Your task to perform on an android device: add a contact in the contacts app Image 0: 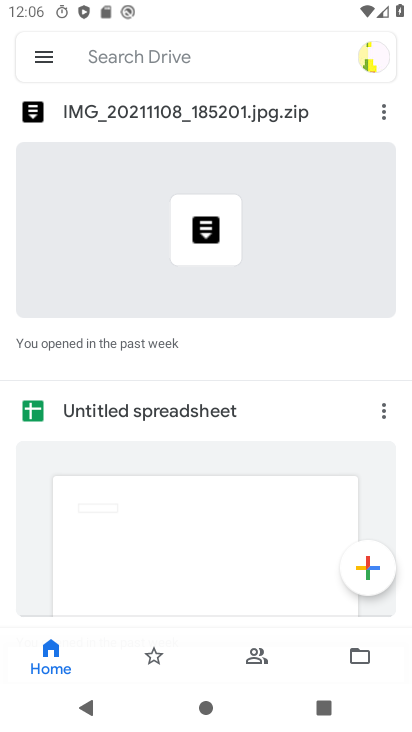
Step 0: press home button
Your task to perform on an android device: add a contact in the contacts app Image 1: 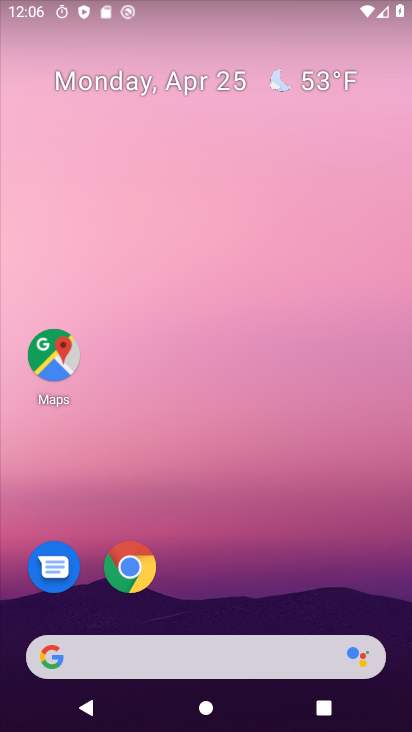
Step 1: drag from (268, 548) to (324, 122)
Your task to perform on an android device: add a contact in the contacts app Image 2: 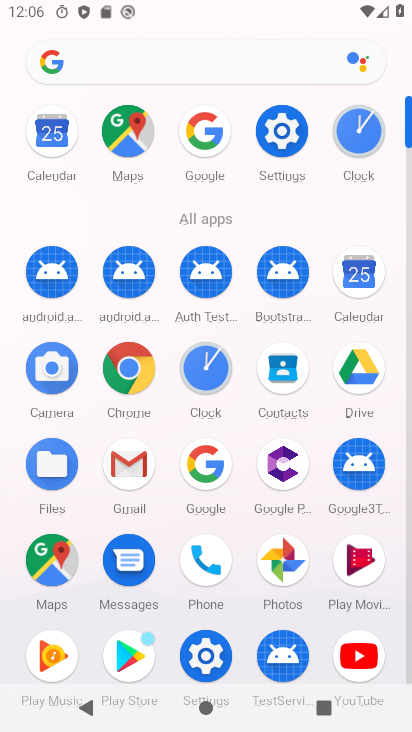
Step 2: click (284, 380)
Your task to perform on an android device: add a contact in the contacts app Image 3: 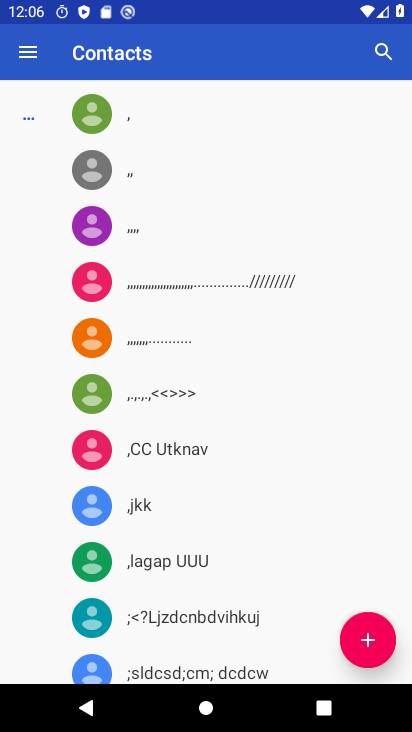
Step 3: click (365, 637)
Your task to perform on an android device: add a contact in the contacts app Image 4: 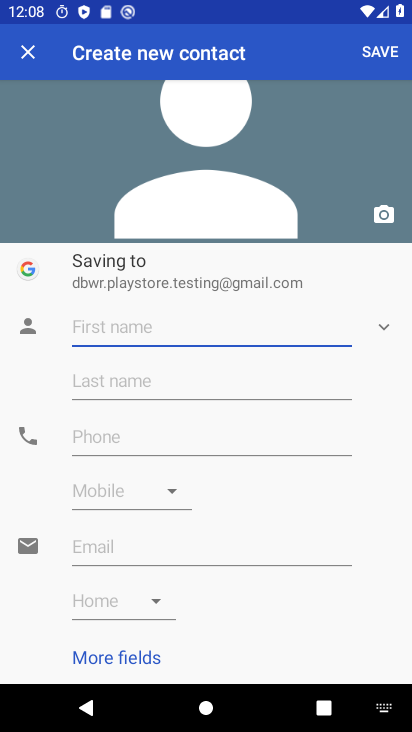
Step 4: type "Krishnanity Chrinstanity"
Your task to perform on an android device: add a contact in the contacts app Image 5: 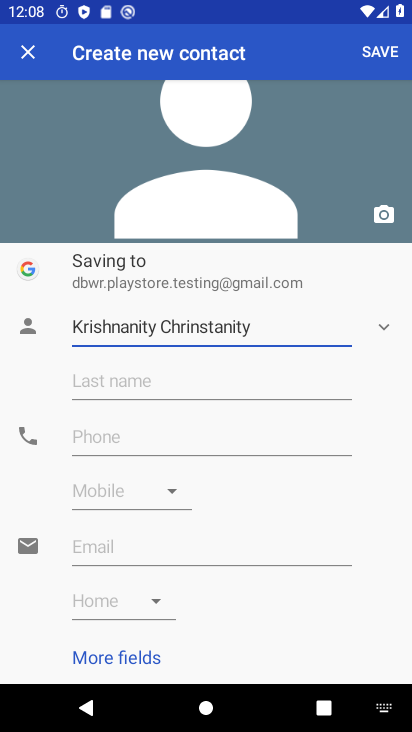
Step 5: click (220, 439)
Your task to perform on an android device: add a contact in the contacts app Image 6: 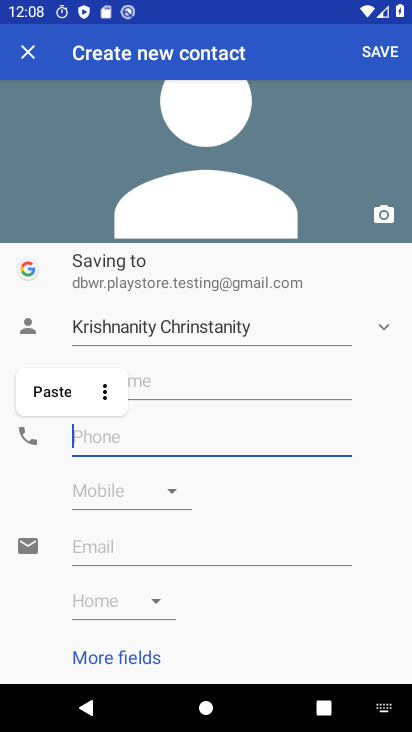
Step 6: type "911133557799"
Your task to perform on an android device: add a contact in the contacts app Image 7: 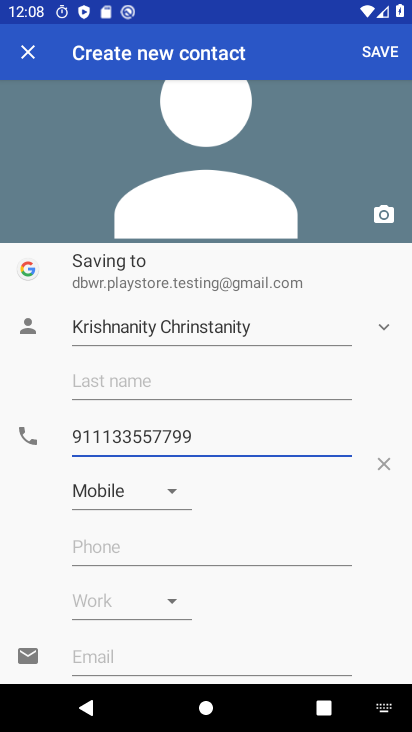
Step 7: click (382, 53)
Your task to perform on an android device: add a contact in the contacts app Image 8: 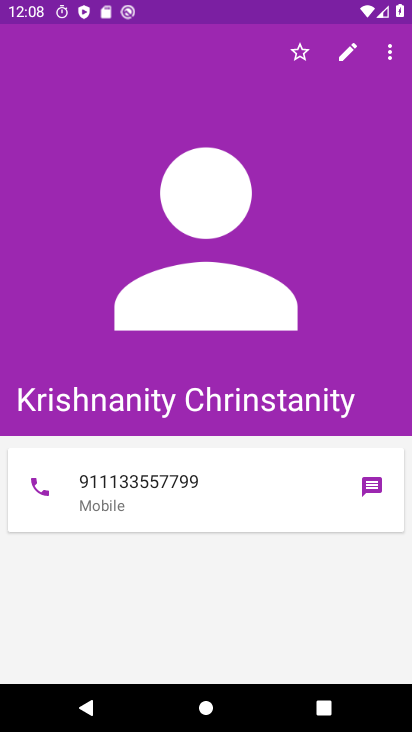
Step 8: click (344, 55)
Your task to perform on an android device: add a contact in the contacts app Image 9: 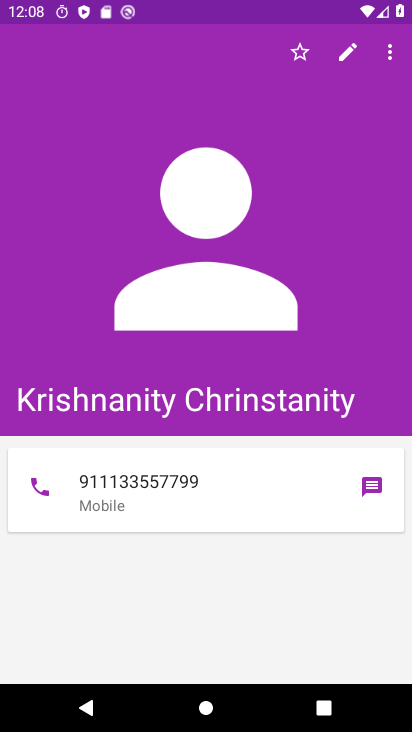
Step 9: click (344, 51)
Your task to perform on an android device: add a contact in the contacts app Image 10: 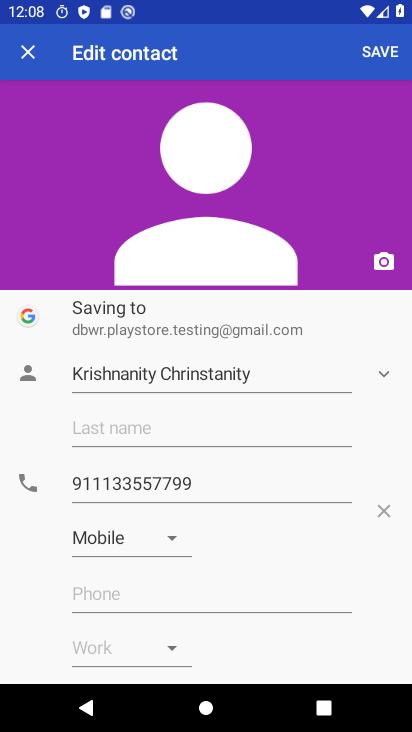
Step 10: click (257, 372)
Your task to perform on an android device: add a contact in the contacts app Image 11: 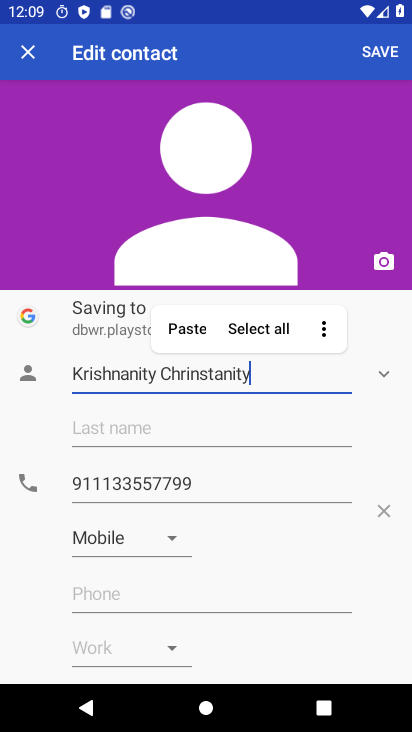
Step 11: type ""
Your task to perform on an android device: add a contact in the contacts app Image 12: 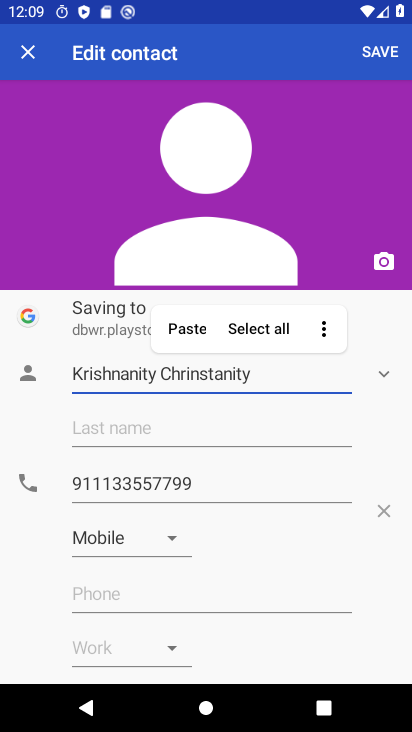
Step 12: click (234, 429)
Your task to perform on an android device: add a contact in the contacts app Image 13: 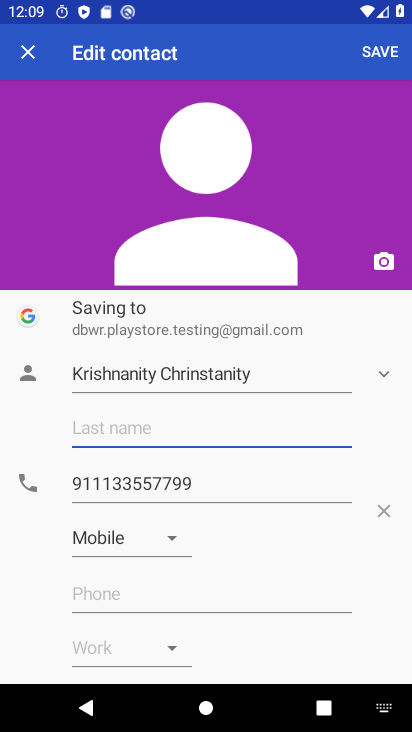
Step 13: type "Kristankity"
Your task to perform on an android device: add a contact in the contacts app Image 14: 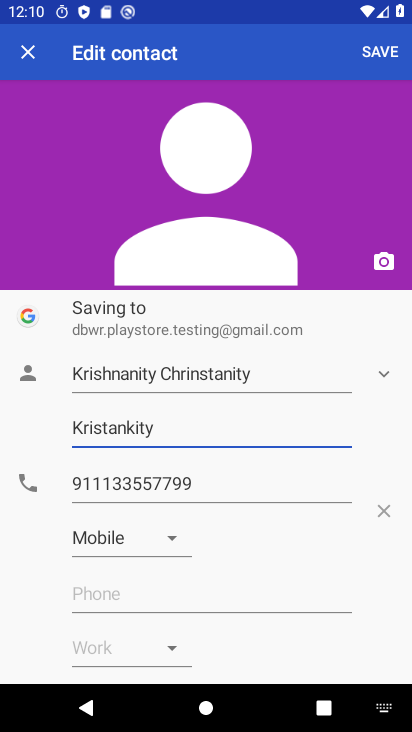
Step 14: click (230, 428)
Your task to perform on an android device: add a contact in the contacts app Image 15: 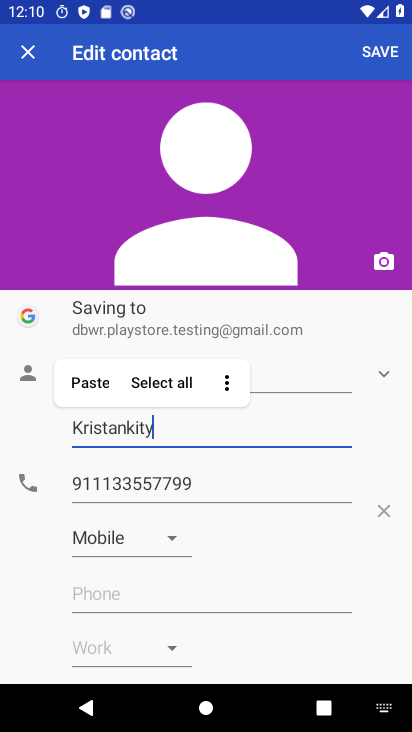
Step 15: click (375, 51)
Your task to perform on an android device: add a contact in the contacts app Image 16: 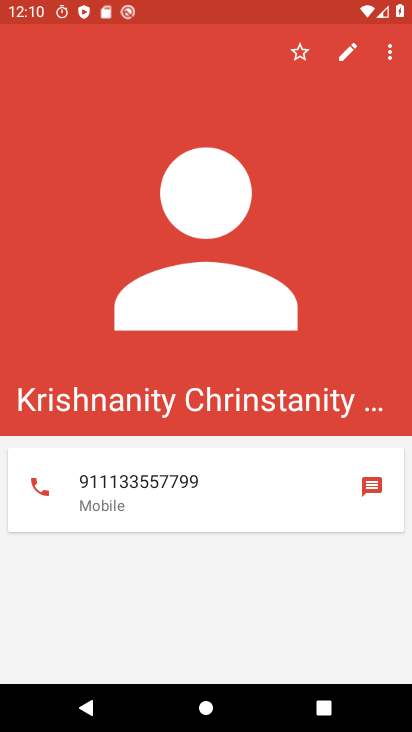
Step 16: task complete